Your task to perform on an android device: Open battery settings Image 0: 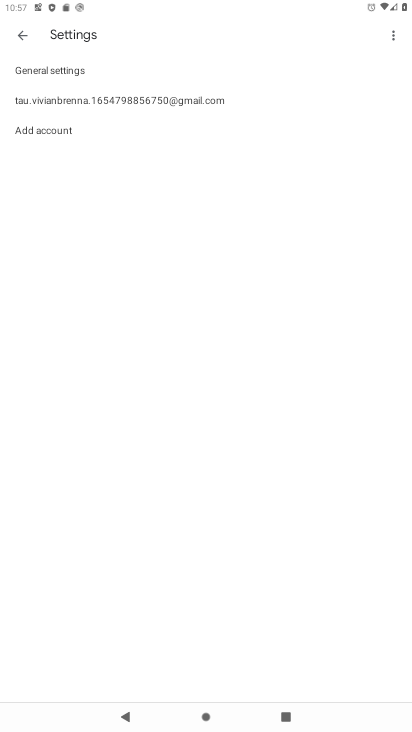
Step 0: drag from (230, 6) to (303, 545)
Your task to perform on an android device: Open battery settings Image 1: 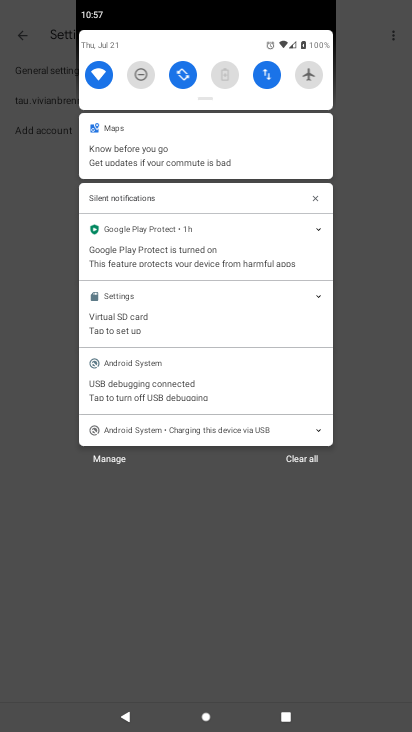
Step 1: click (227, 80)
Your task to perform on an android device: Open battery settings Image 2: 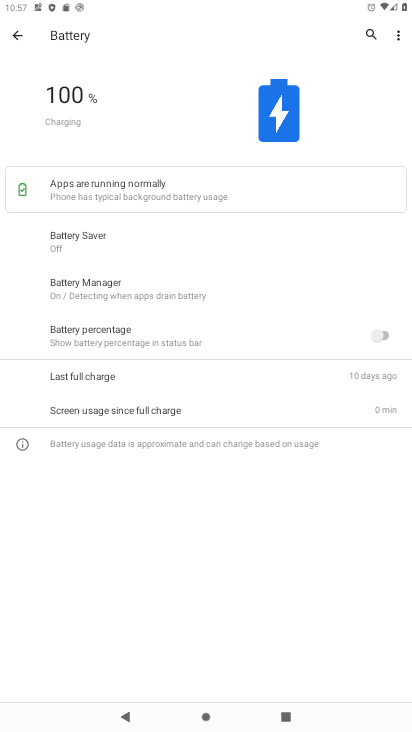
Step 2: task complete